Your task to perform on an android device: What's the weather? Image 0: 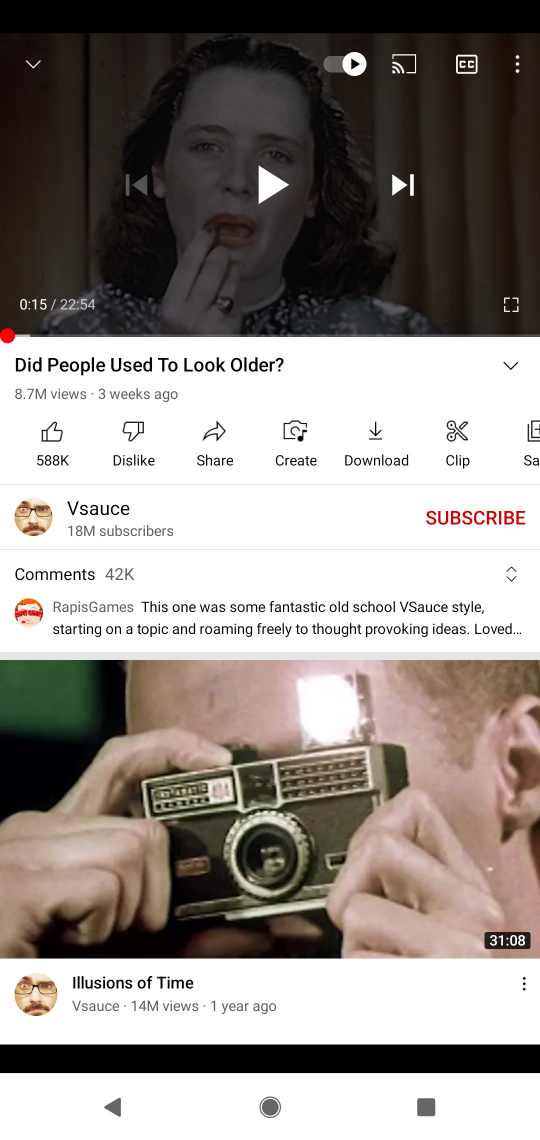
Step 0: press home button
Your task to perform on an android device: What's the weather? Image 1: 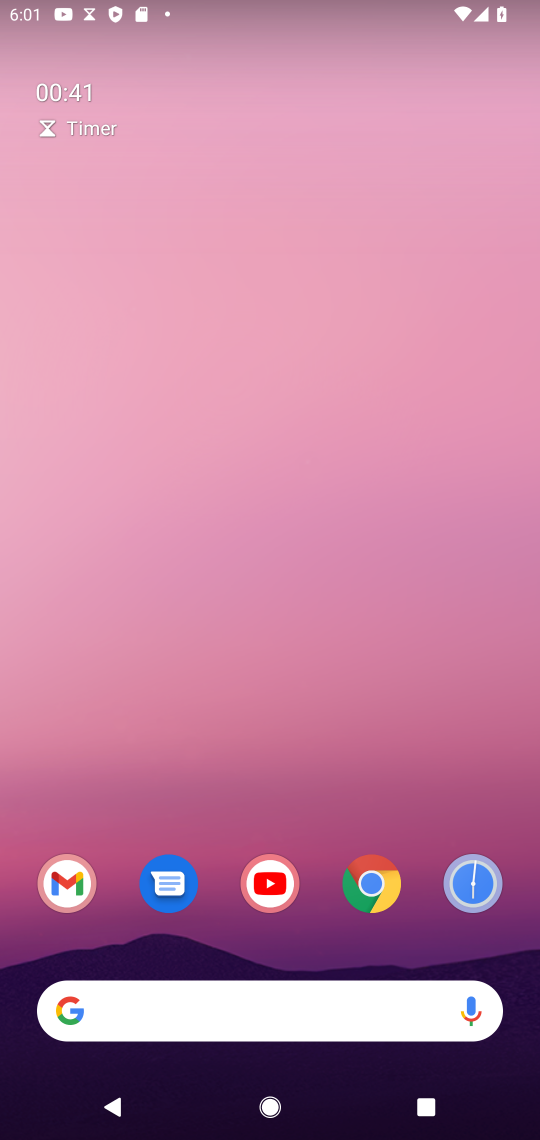
Step 1: drag from (172, 966) to (184, 450)
Your task to perform on an android device: What's the weather? Image 2: 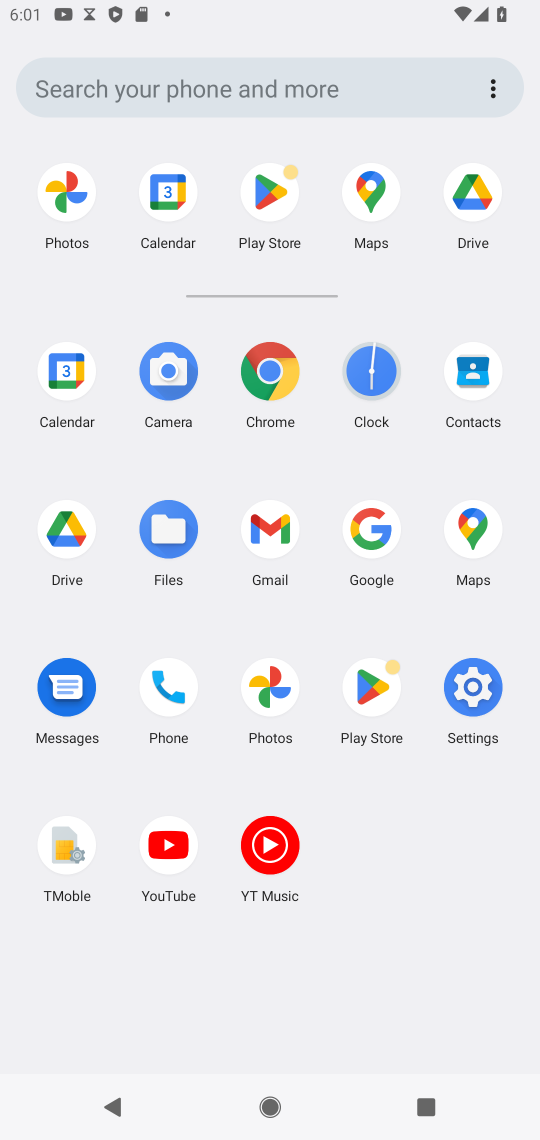
Step 2: click (357, 531)
Your task to perform on an android device: What's the weather? Image 3: 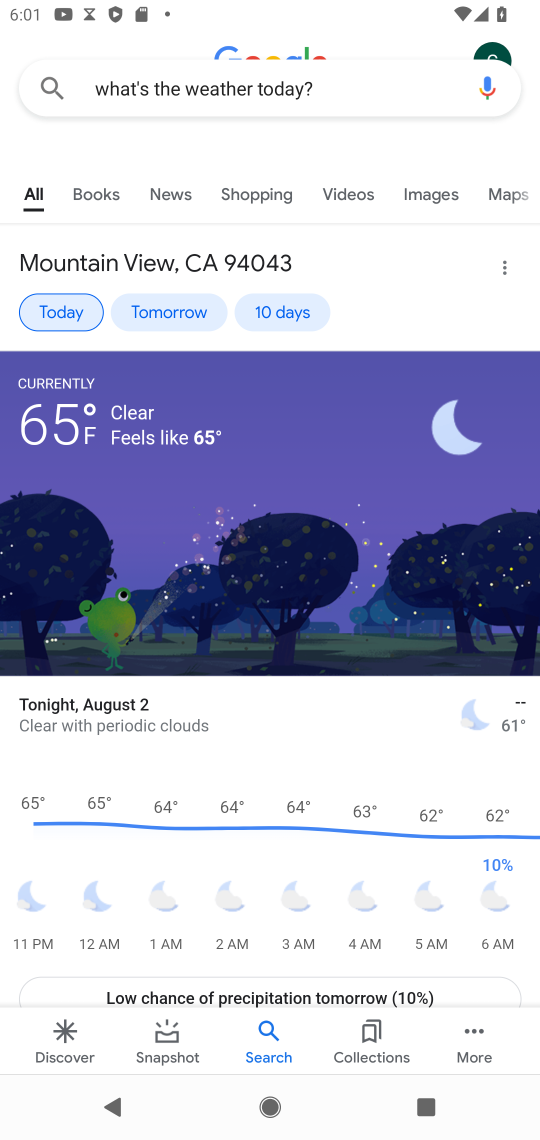
Step 3: click (336, 79)
Your task to perform on an android device: What's the weather? Image 4: 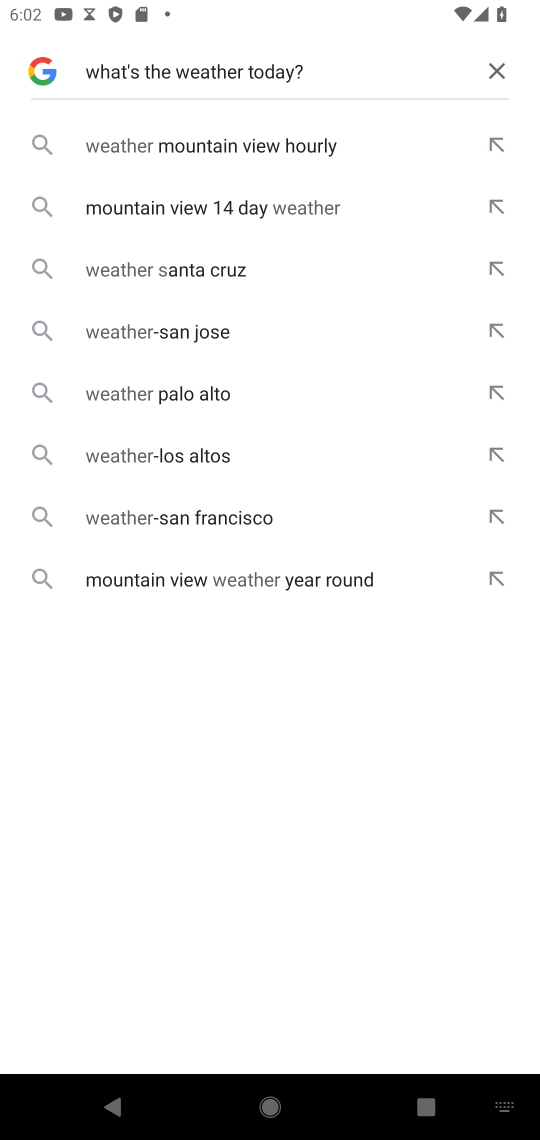
Step 4: click (494, 70)
Your task to perform on an android device: What's the weather? Image 5: 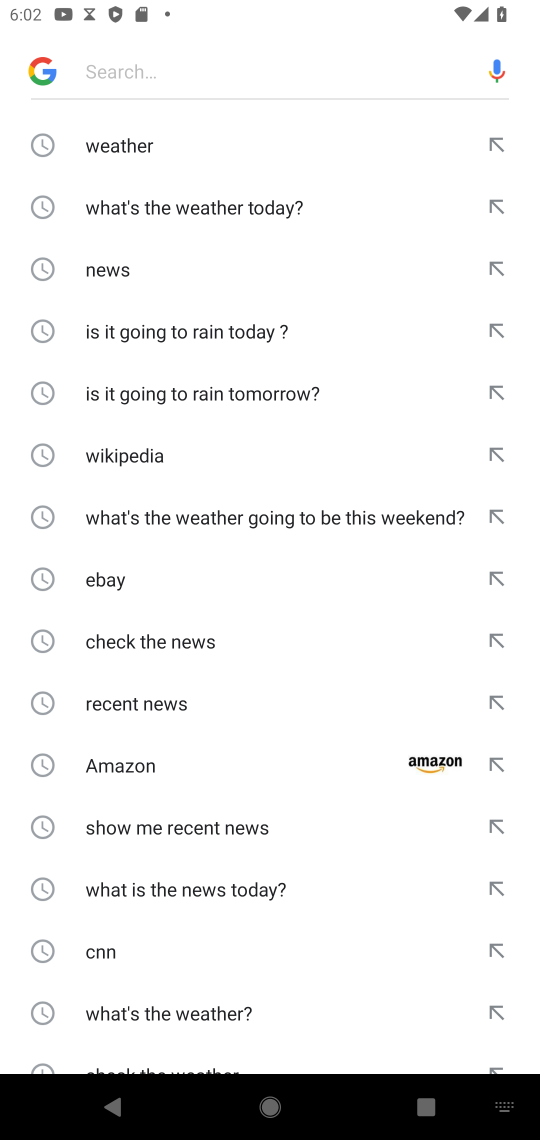
Step 5: click (143, 149)
Your task to perform on an android device: What's the weather? Image 6: 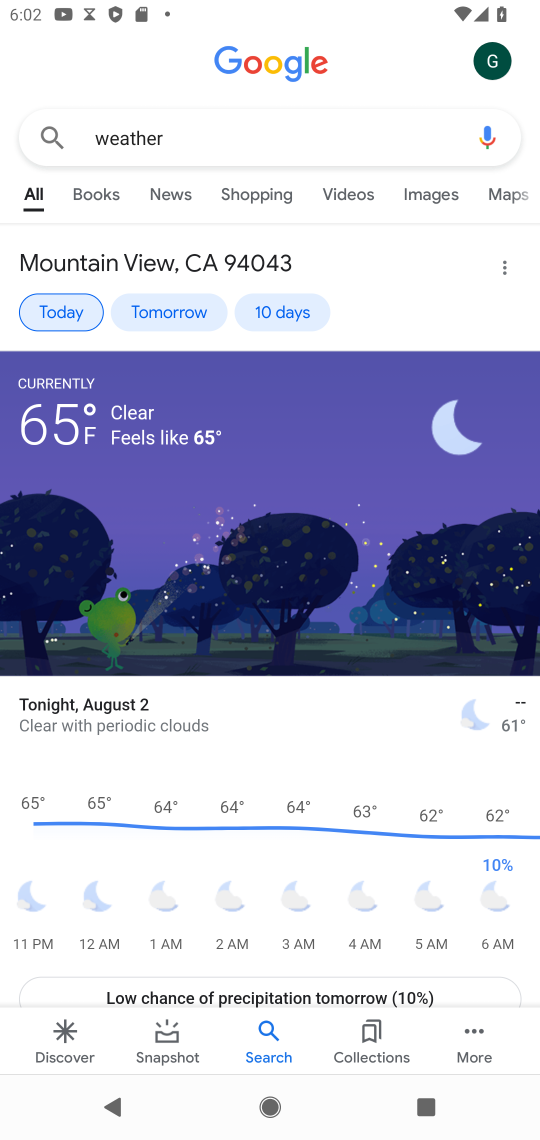
Step 6: task complete